Your task to perform on an android device: Turn off the flashlight Image 0: 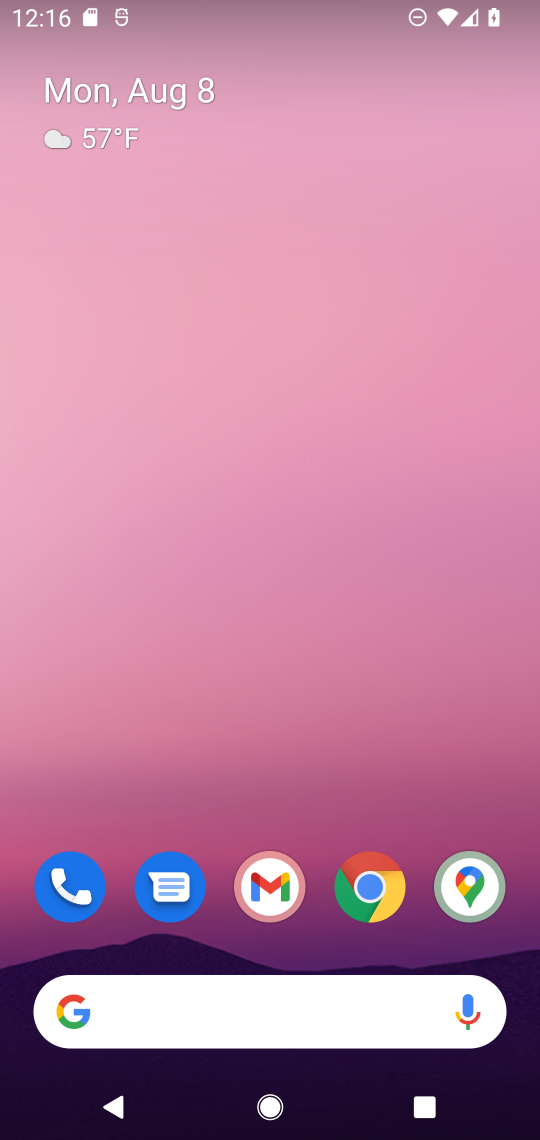
Step 0: drag from (259, 766) to (250, 151)
Your task to perform on an android device: Turn off the flashlight Image 1: 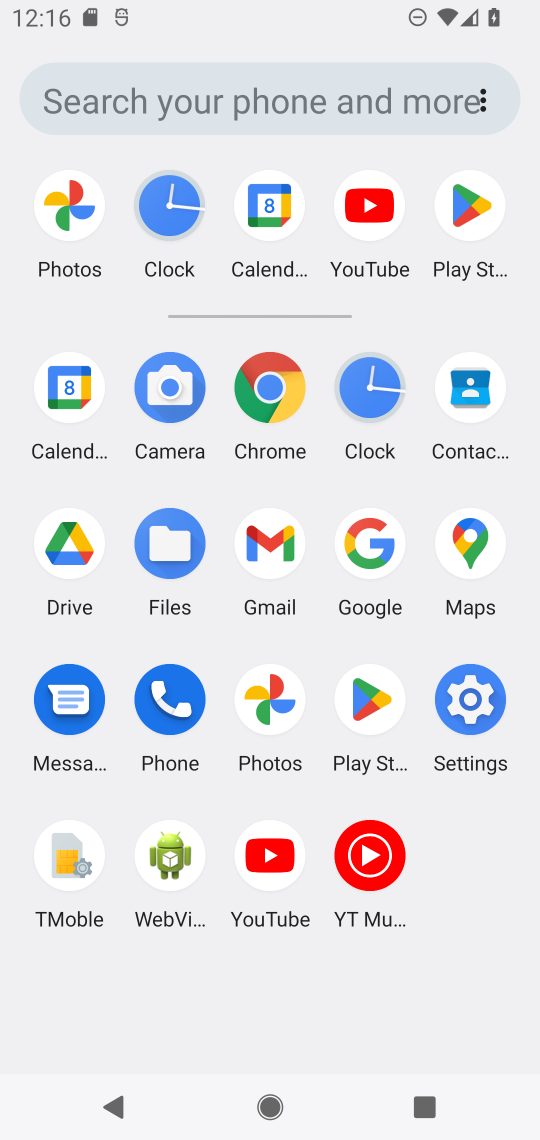
Step 1: click (466, 698)
Your task to perform on an android device: Turn off the flashlight Image 2: 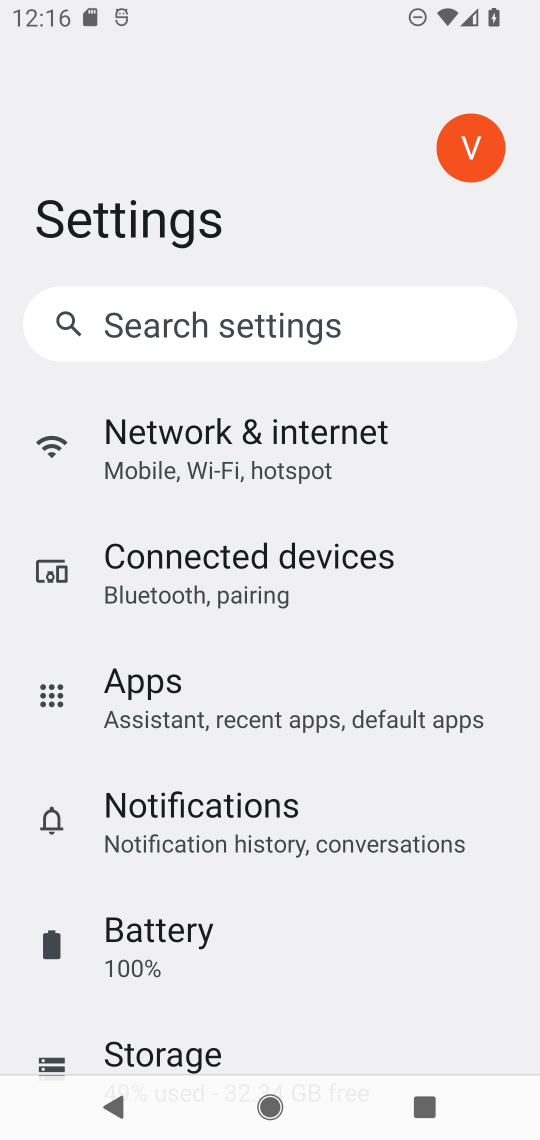
Step 2: task complete